Your task to perform on an android device: Do I have any events tomorrow? Image 0: 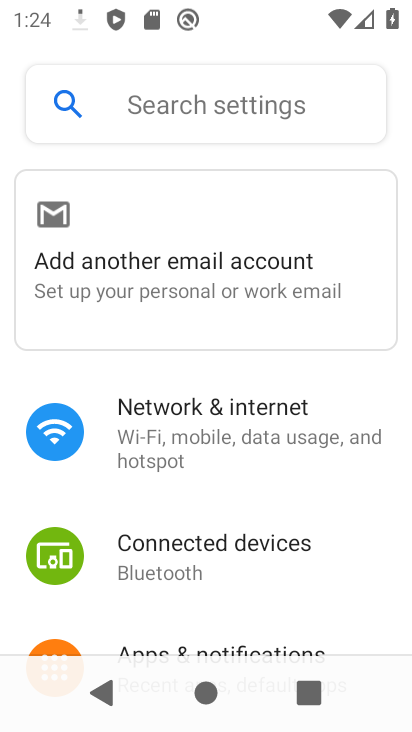
Step 0: press home button
Your task to perform on an android device: Do I have any events tomorrow? Image 1: 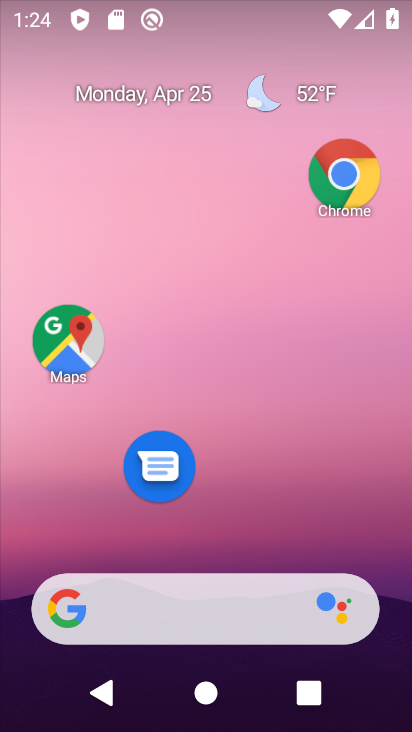
Step 1: drag from (191, 540) to (217, 47)
Your task to perform on an android device: Do I have any events tomorrow? Image 2: 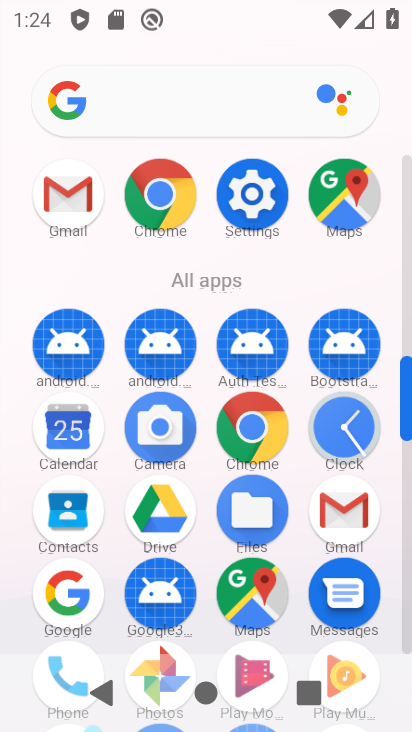
Step 2: click (73, 419)
Your task to perform on an android device: Do I have any events tomorrow? Image 3: 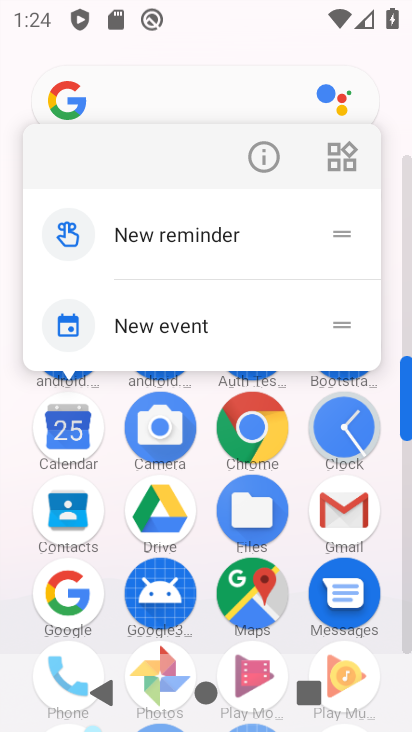
Step 3: click (71, 419)
Your task to perform on an android device: Do I have any events tomorrow? Image 4: 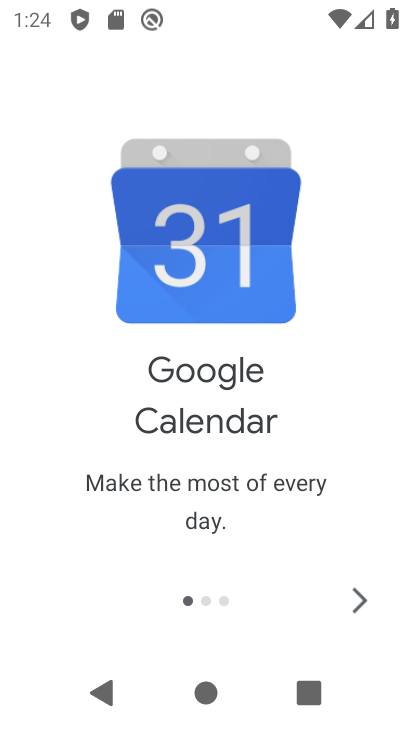
Step 4: click (367, 586)
Your task to perform on an android device: Do I have any events tomorrow? Image 5: 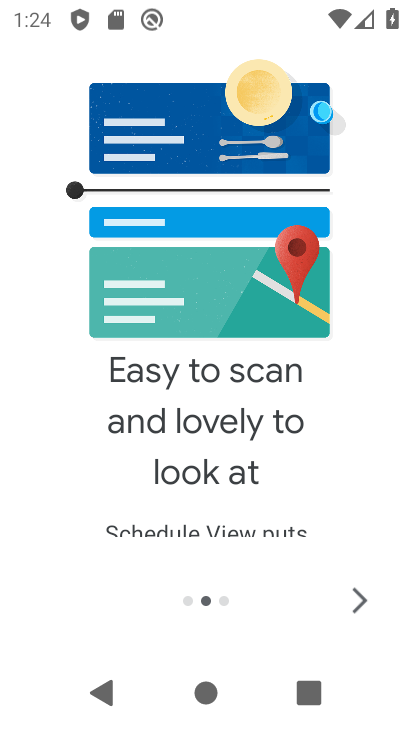
Step 5: click (359, 577)
Your task to perform on an android device: Do I have any events tomorrow? Image 6: 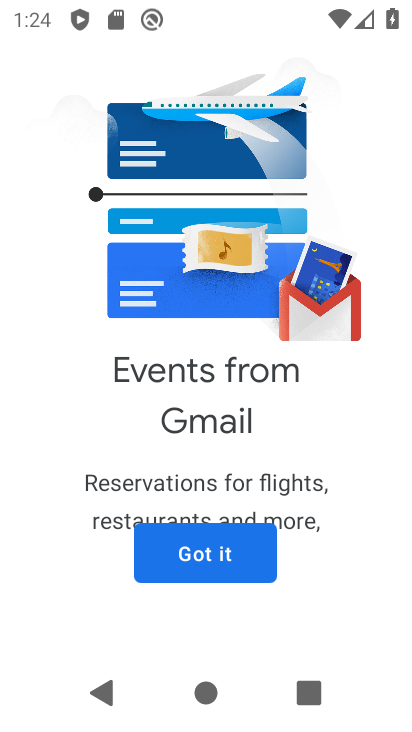
Step 6: click (150, 563)
Your task to perform on an android device: Do I have any events tomorrow? Image 7: 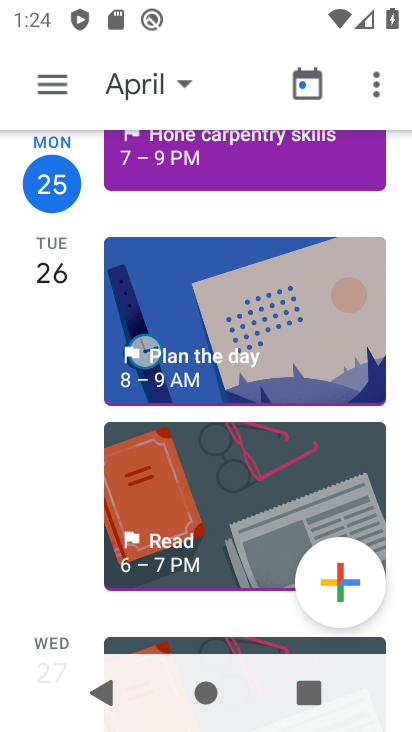
Step 7: click (136, 84)
Your task to perform on an android device: Do I have any events tomorrow? Image 8: 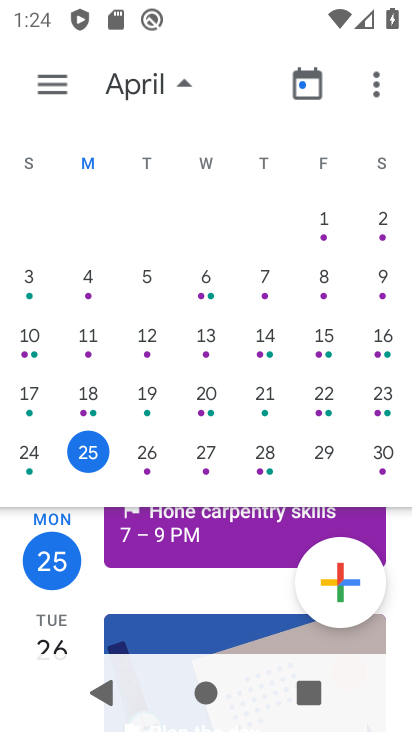
Step 8: click (141, 446)
Your task to perform on an android device: Do I have any events tomorrow? Image 9: 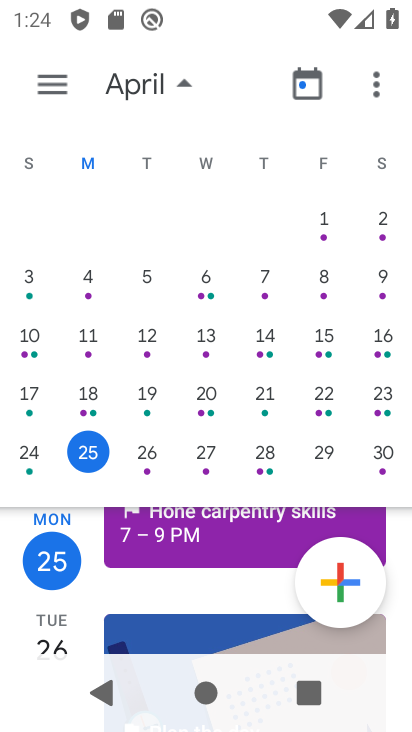
Step 9: click (142, 456)
Your task to perform on an android device: Do I have any events tomorrow? Image 10: 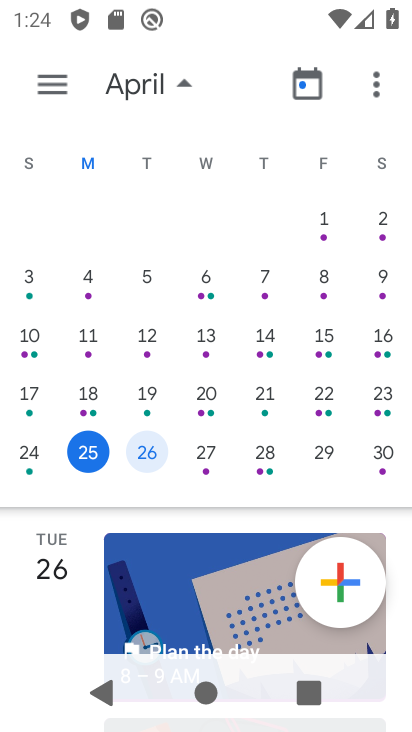
Step 10: task complete